Your task to perform on an android device: find which apps use the phone's location Image 0: 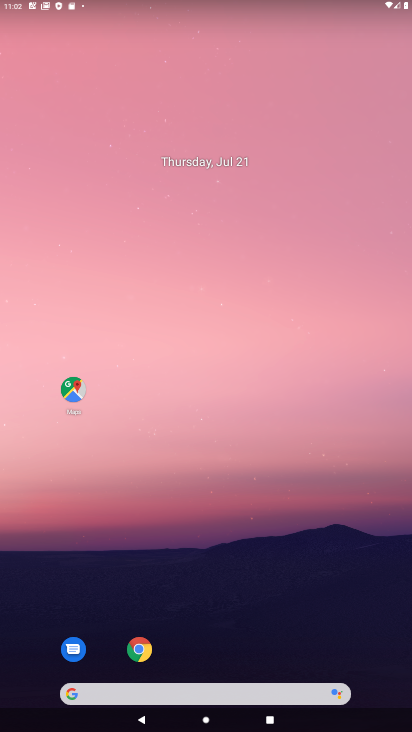
Step 0: drag from (279, 639) to (210, 55)
Your task to perform on an android device: find which apps use the phone's location Image 1: 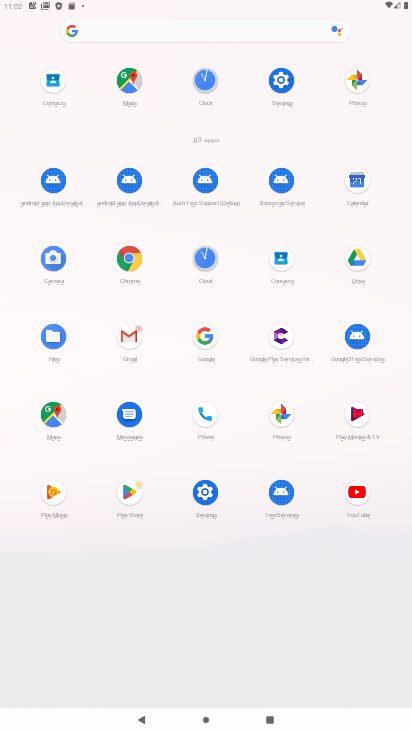
Step 1: click (202, 492)
Your task to perform on an android device: find which apps use the phone's location Image 2: 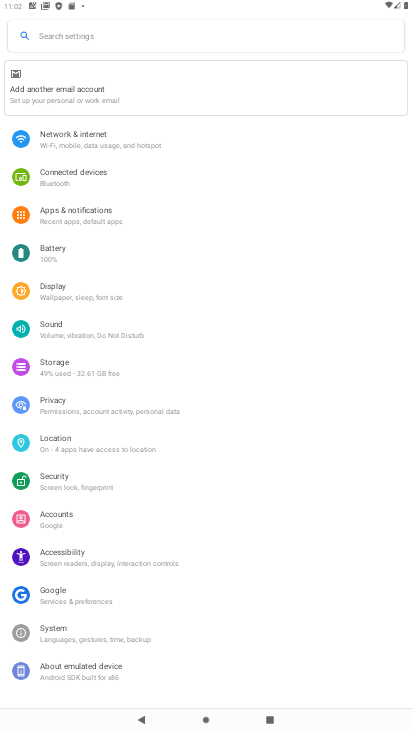
Step 2: click (94, 443)
Your task to perform on an android device: find which apps use the phone's location Image 3: 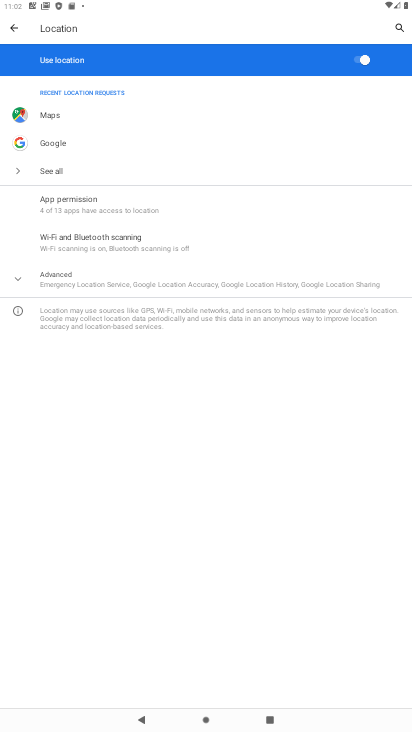
Step 3: click (194, 191)
Your task to perform on an android device: find which apps use the phone's location Image 4: 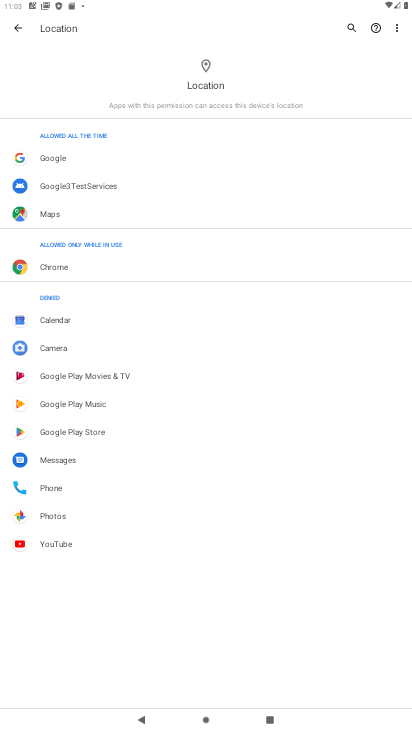
Step 4: task complete